Your task to perform on an android device: delete a single message in the gmail app Image 0: 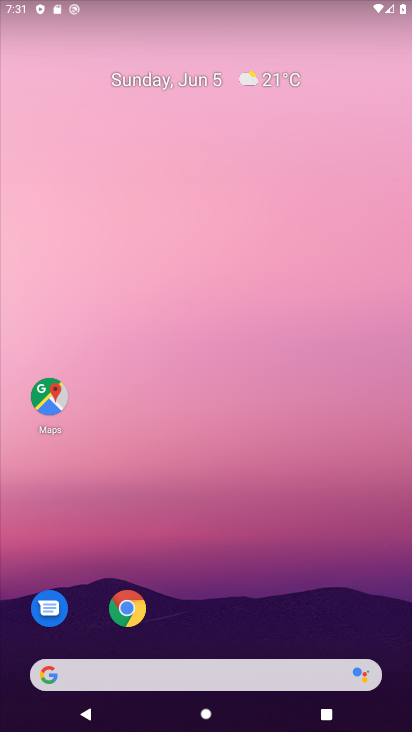
Step 0: drag from (270, 623) to (278, 286)
Your task to perform on an android device: delete a single message in the gmail app Image 1: 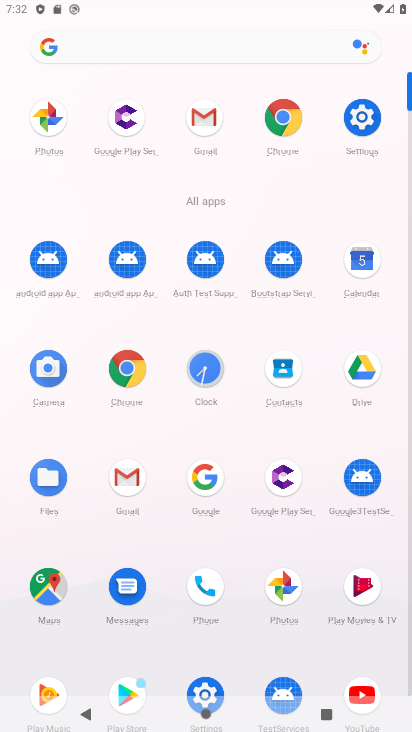
Step 1: click (132, 485)
Your task to perform on an android device: delete a single message in the gmail app Image 2: 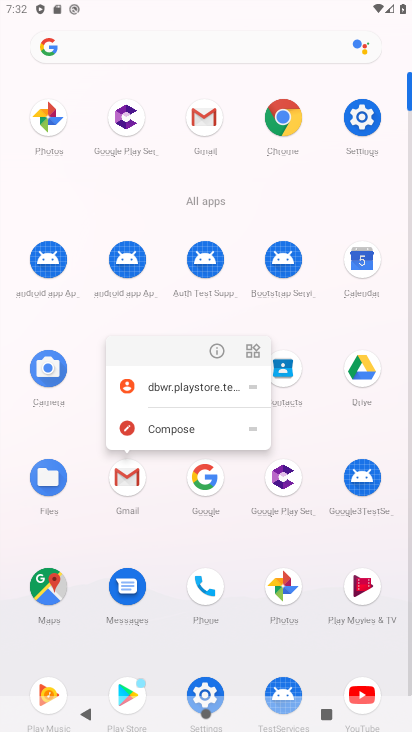
Step 2: click (132, 485)
Your task to perform on an android device: delete a single message in the gmail app Image 3: 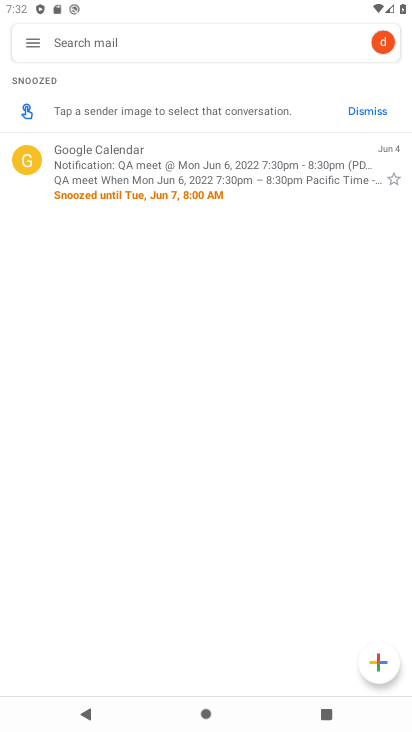
Step 3: click (22, 41)
Your task to perform on an android device: delete a single message in the gmail app Image 4: 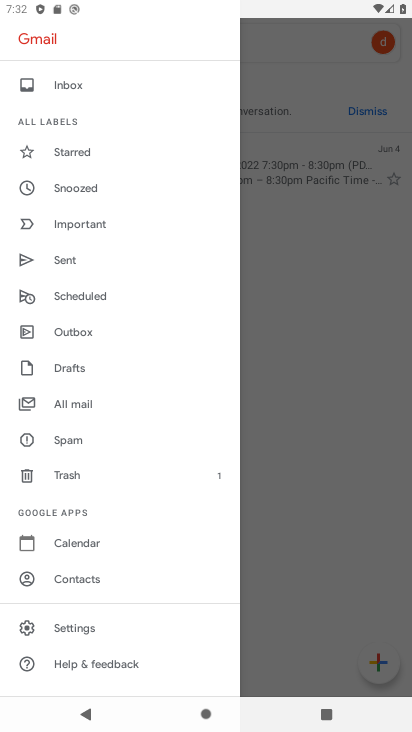
Step 4: click (119, 403)
Your task to perform on an android device: delete a single message in the gmail app Image 5: 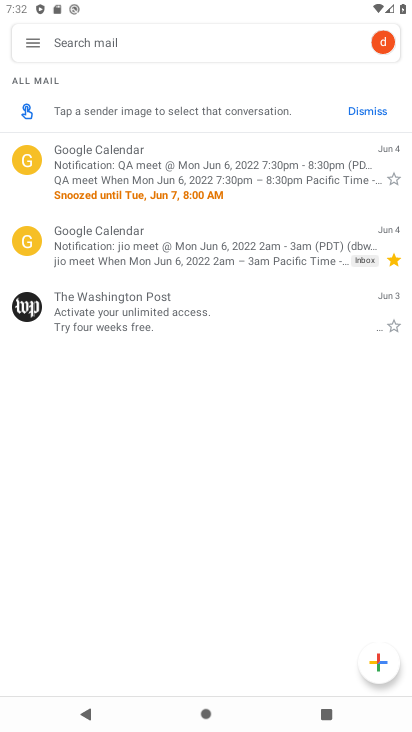
Step 5: click (267, 163)
Your task to perform on an android device: delete a single message in the gmail app Image 6: 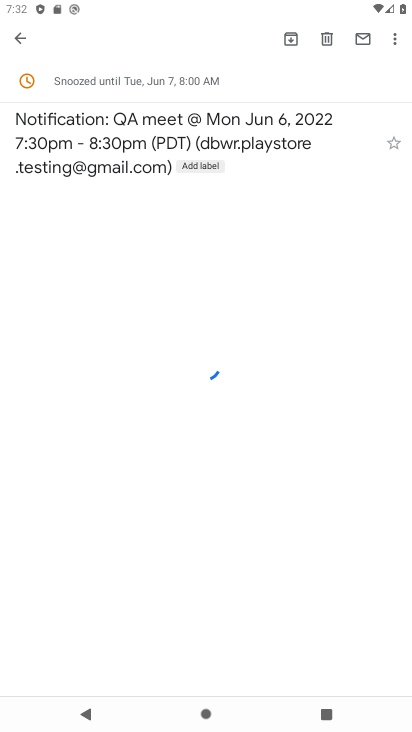
Step 6: click (333, 38)
Your task to perform on an android device: delete a single message in the gmail app Image 7: 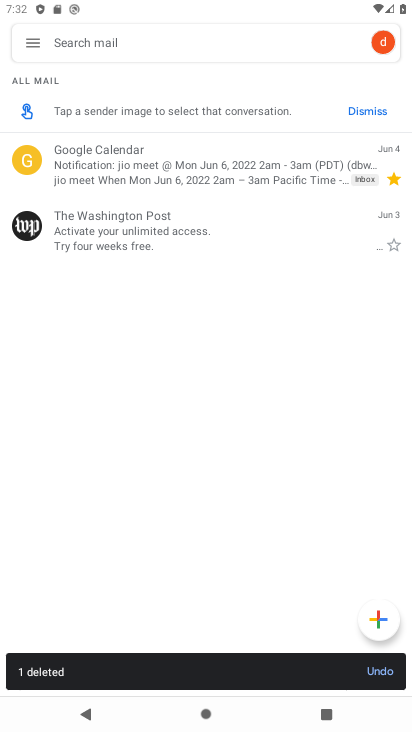
Step 7: task complete